Your task to perform on an android device: Open Google Maps and go to "Timeline" Image 0: 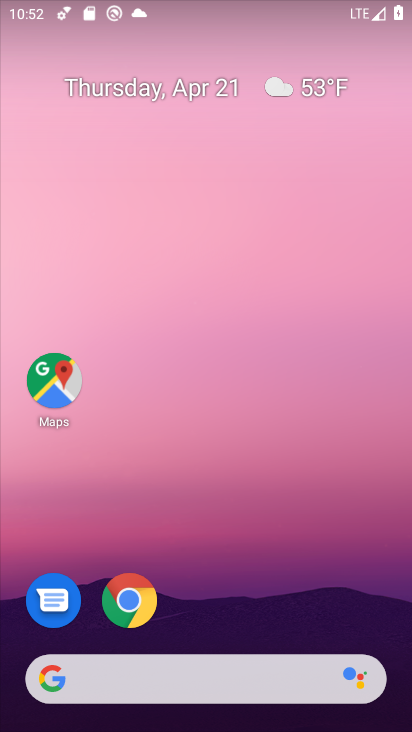
Step 0: click (50, 383)
Your task to perform on an android device: Open Google Maps and go to "Timeline" Image 1: 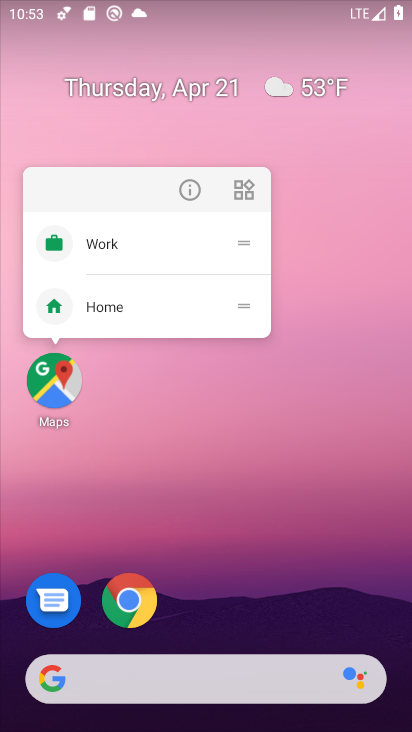
Step 1: click (49, 382)
Your task to perform on an android device: Open Google Maps and go to "Timeline" Image 2: 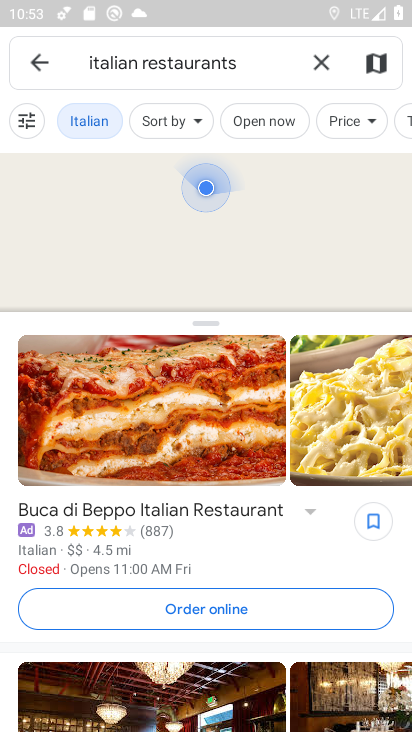
Step 2: click (38, 57)
Your task to perform on an android device: Open Google Maps and go to "Timeline" Image 3: 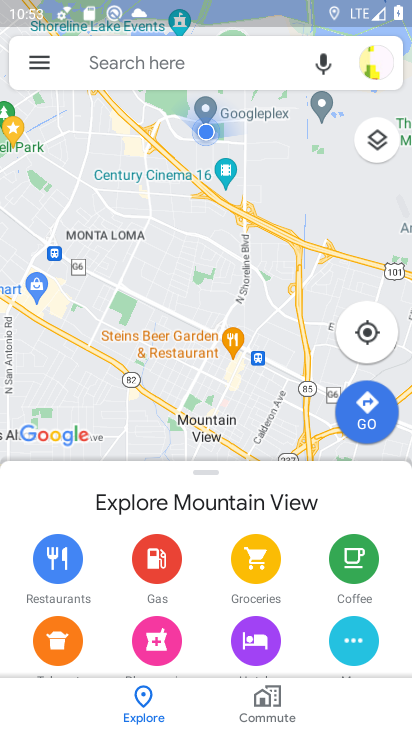
Step 3: click (38, 57)
Your task to perform on an android device: Open Google Maps and go to "Timeline" Image 4: 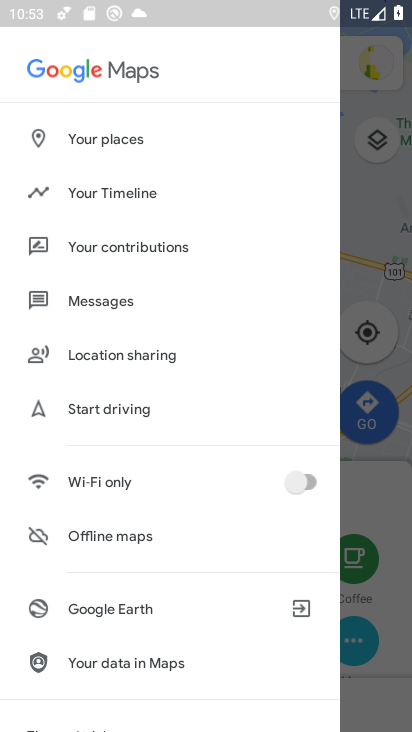
Step 4: click (77, 191)
Your task to perform on an android device: Open Google Maps and go to "Timeline" Image 5: 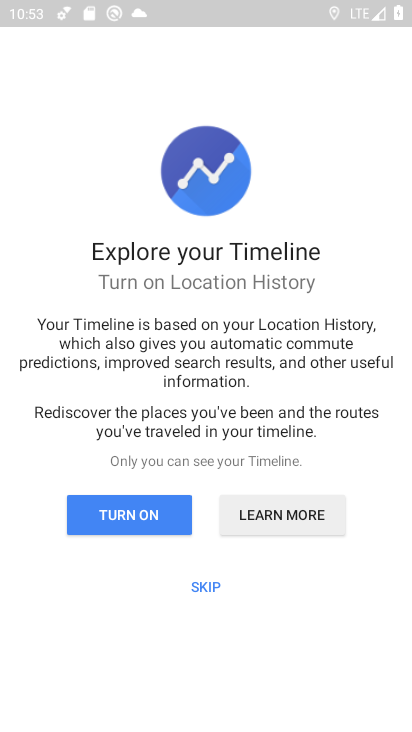
Step 5: click (199, 584)
Your task to perform on an android device: Open Google Maps and go to "Timeline" Image 6: 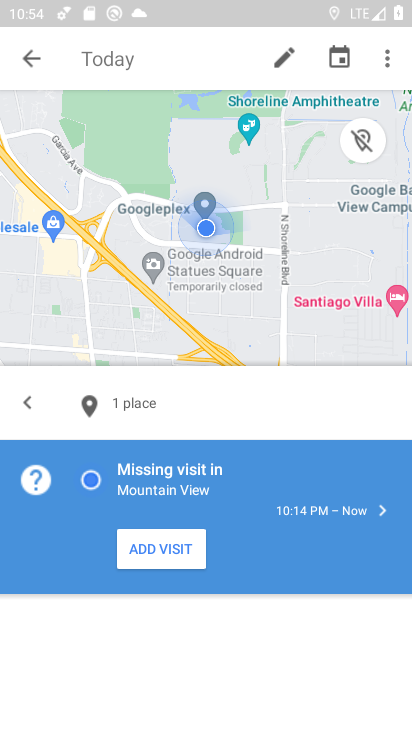
Step 6: task complete